Your task to perform on an android device: change the clock style Image 0: 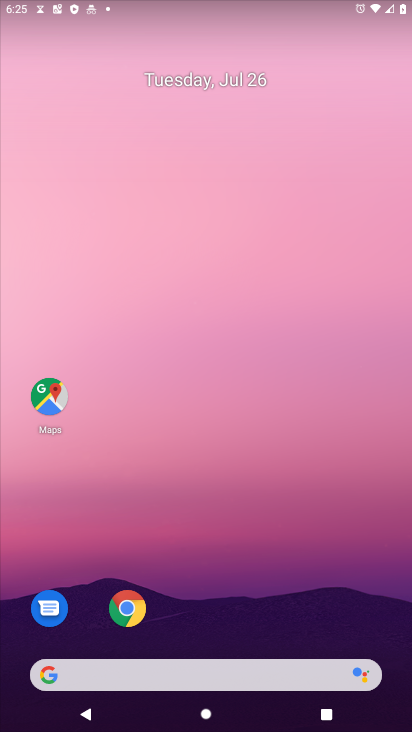
Step 0: drag from (261, 633) to (242, 0)
Your task to perform on an android device: change the clock style Image 1: 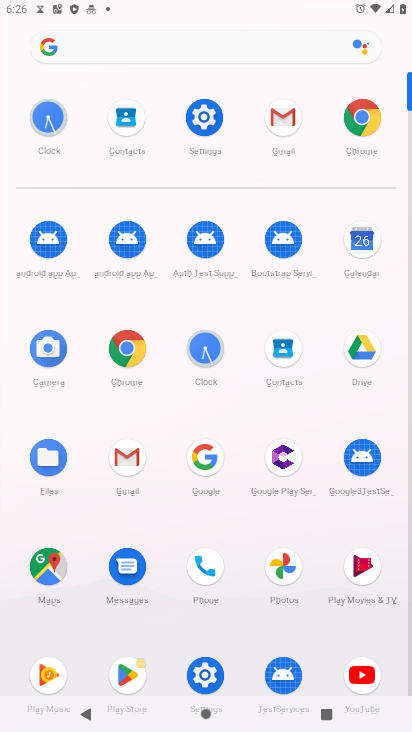
Step 1: click (202, 342)
Your task to perform on an android device: change the clock style Image 2: 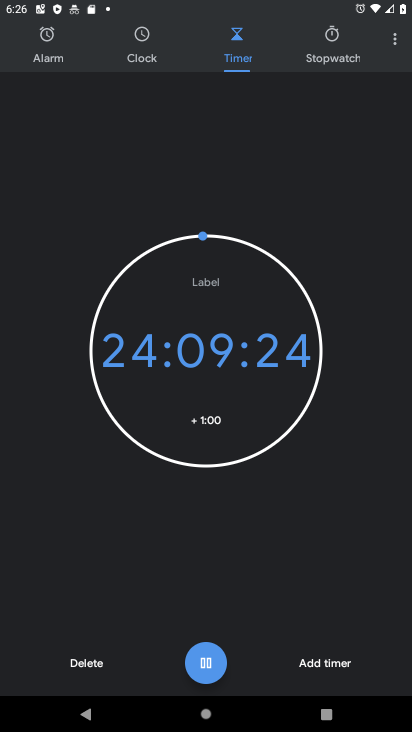
Step 2: click (392, 41)
Your task to perform on an android device: change the clock style Image 3: 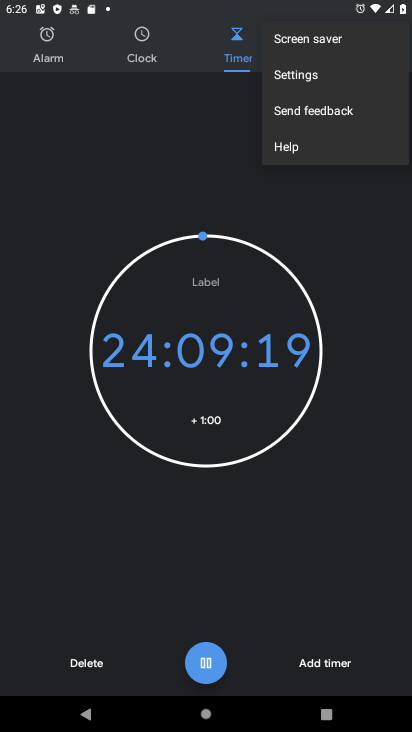
Step 3: click (302, 78)
Your task to perform on an android device: change the clock style Image 4: 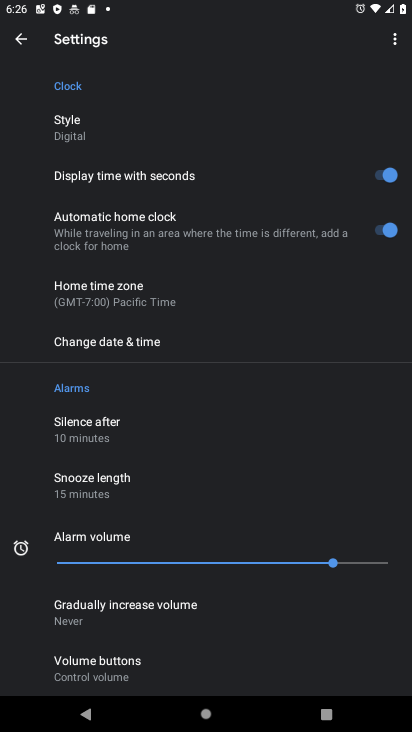
Step 4: click (76, 125)
Your task to perform on an android device: change the clock style Image 5: 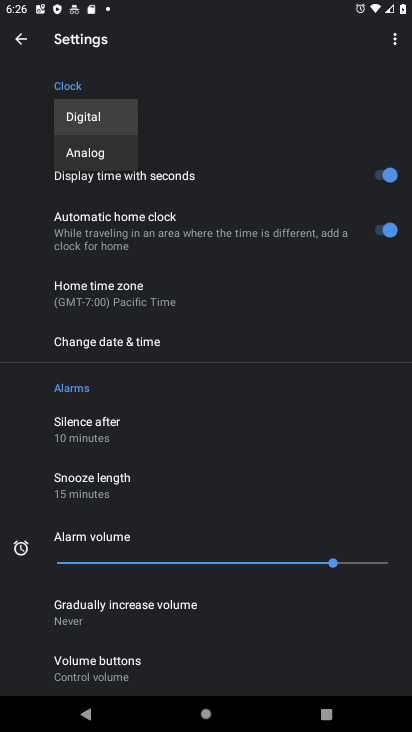
Step 5: click (71, 158)
Your task to perform on an android device: change the clock style Image 6: 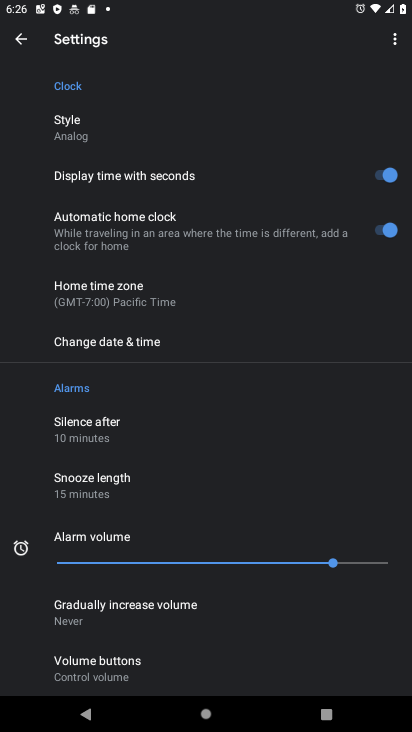
Step 6: task complete